Your task to perform on an android device: Open accessibility settings Image 0: 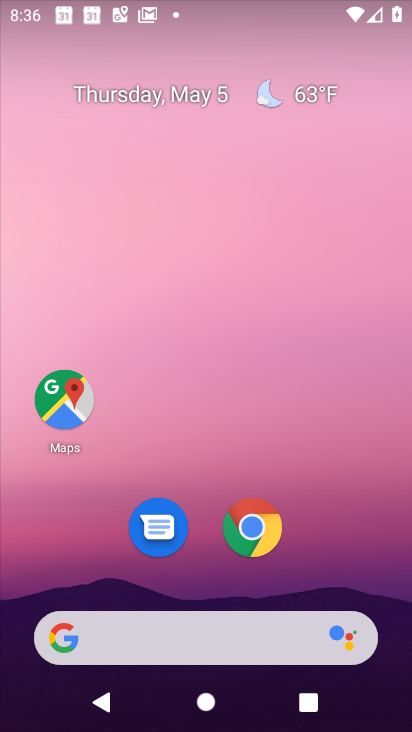
Step 0: drag from (250, 701) to (284, 52)
Your task to perform on an android device: Open accessibility settings Image 1: 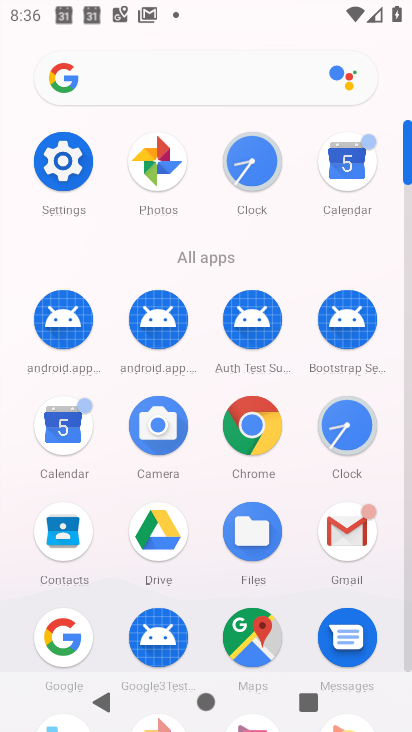
Step 1: click (64, 160)
Your task to perform on an android device: Open accessibility settings Image 2: 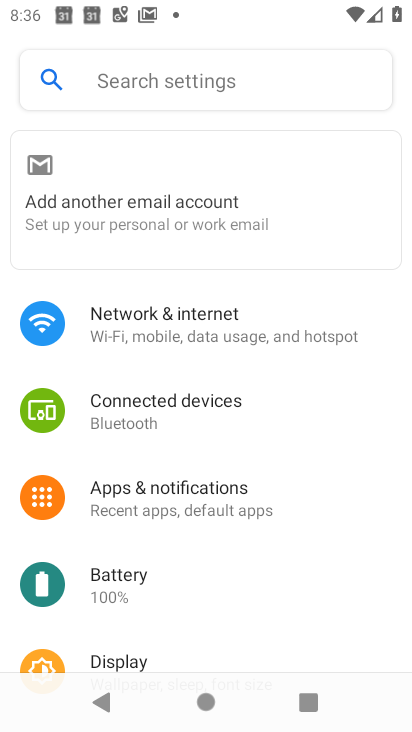
Step 2: drag from (311, 634) to (223, 11)
Your task to perform on an android device: Open accessibility settings Image 3: 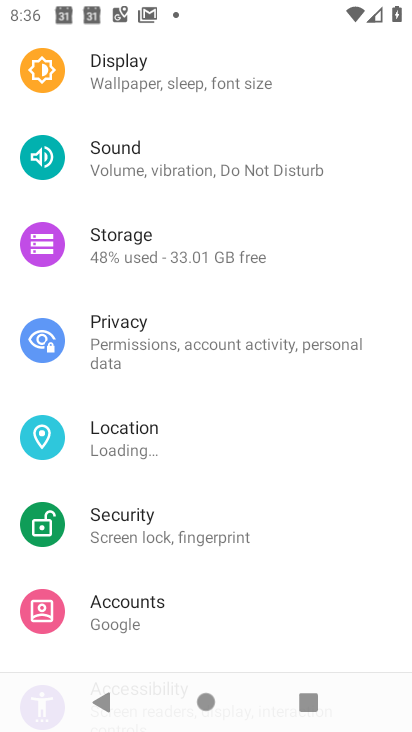
Step 3: drag from (300, 598) to (227, 0)
Your task to perform on an android device: Open accessibility settings Image 4: 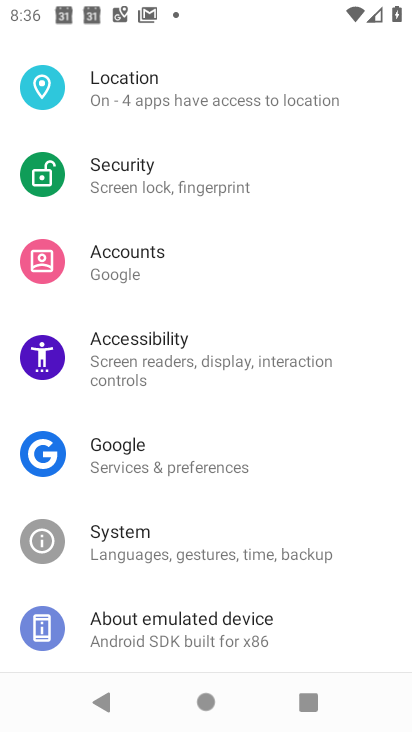
Step 4: click (214, 355)
Your task to perform on an android device: Open accessibility settings Image 5: 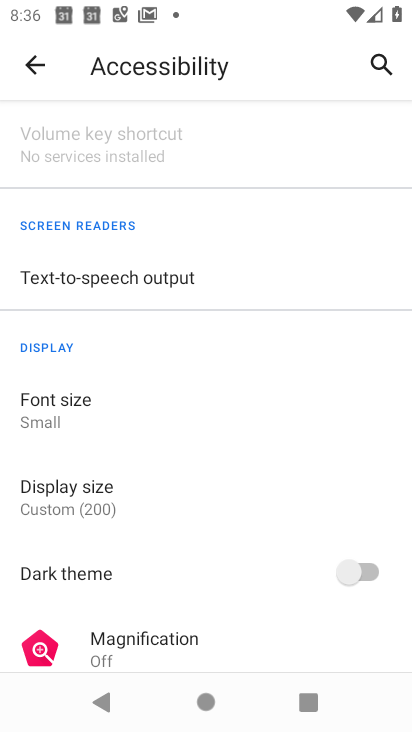
Step 5: task complete